Your task to perform on an android device: Search for pizza restaurants on Maps Image 0: 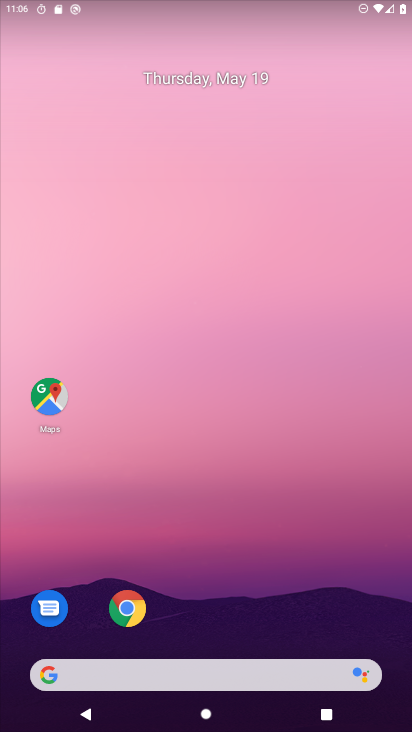
Step 0: click (37, 388)
Your task to perform on an android device: Search for pizza restaurants on Maps Image 1: 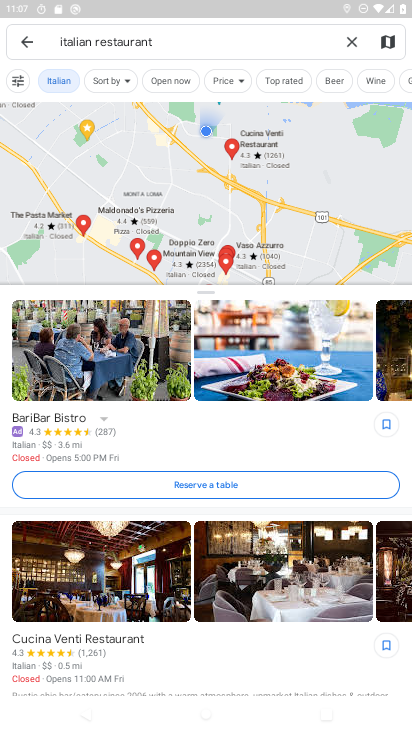
Step 1: click (184, 45)
Your task to perform on an android device: Search for pizza restaurants on Maps Image 2: 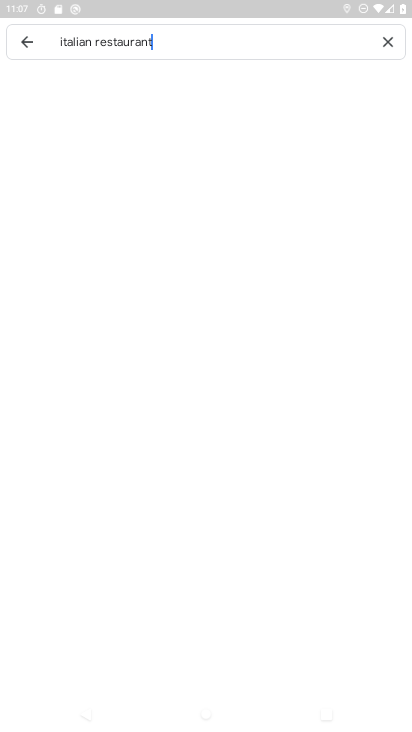
Step 2: click (345, 44)
Your task to perform on an android device: Search for pizza restaurants on Maps Image 3: 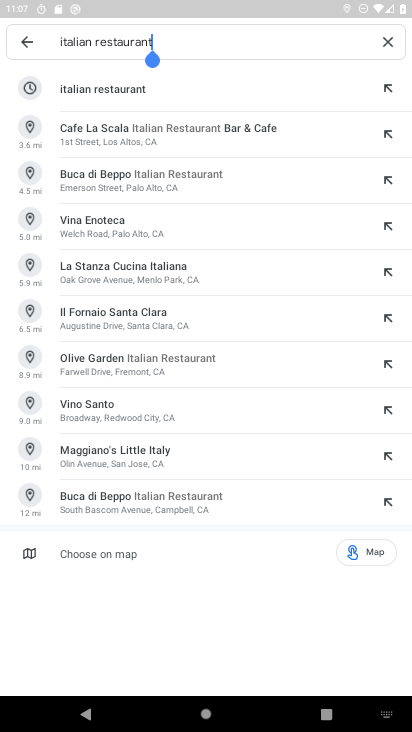
Step 3: click (391, 38)
Your task to perform on an android device: Search for pizza restaurants on Maps Image 4: 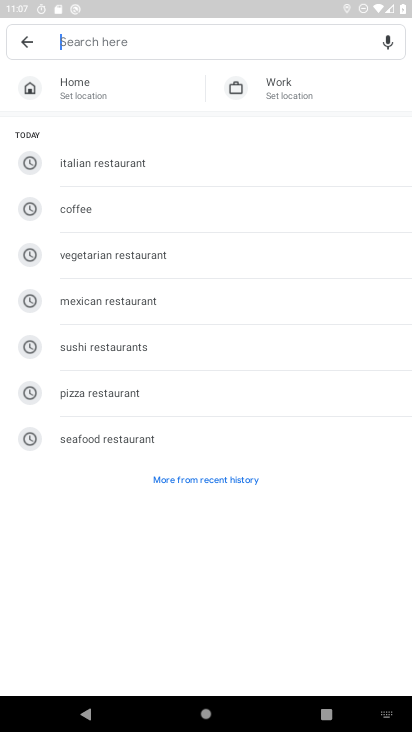
Step 4: type "pizza restaurants"
Your task to perform on an android device: Search for pizza restaurants on Maps Image 5: 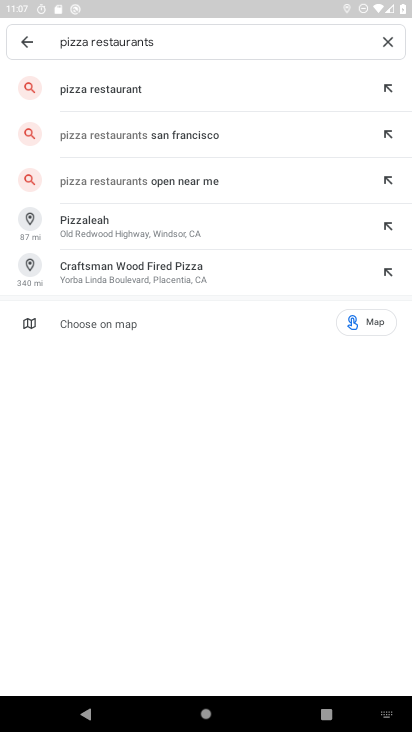
Step 5: click (131, 86)
Your task to perform on an android device: Search for pizza restaurants on Maps Image 6: 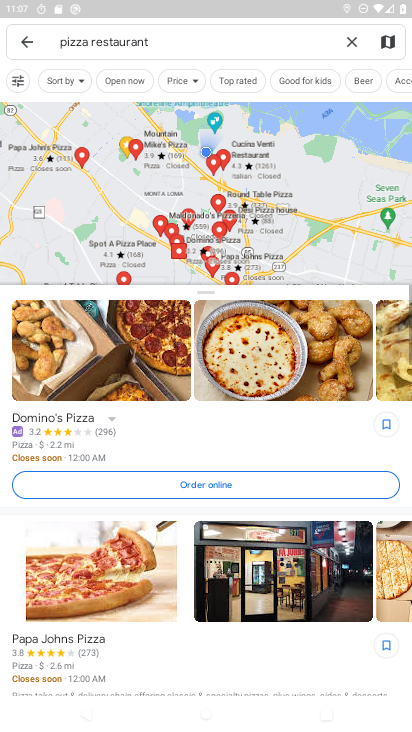
Step 6: task complete